Your task to perform on an android device: open a new tab in the chrome app Image 0: 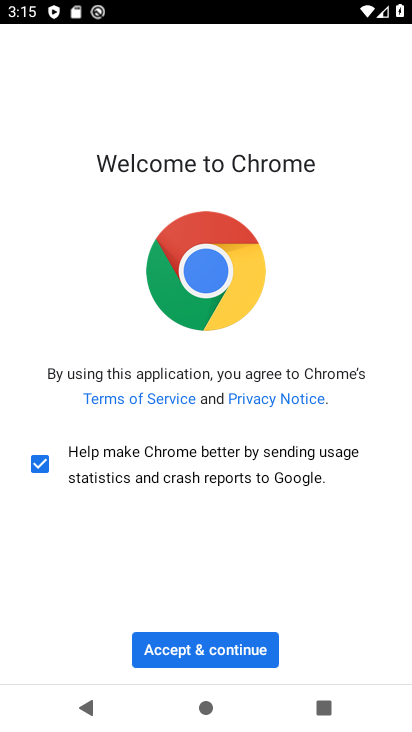
Step 0: click (215, 648)
Your task to perform on an android device: open a new tab in the chrome app Image 1: 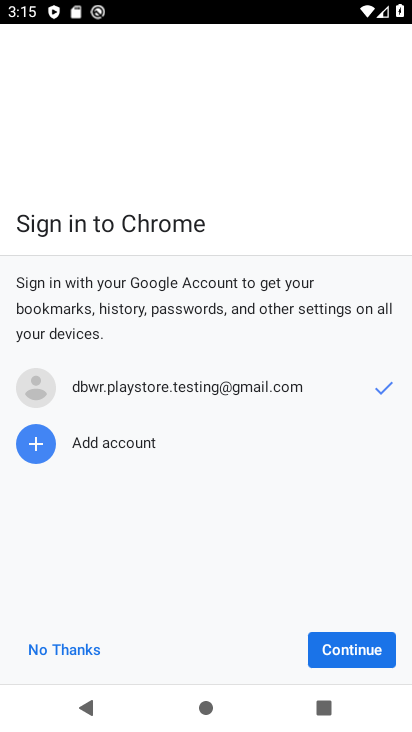
Step 1: click (369, 650)
Your task to perform on an android device: open a new tab in the chrome app Image 2: 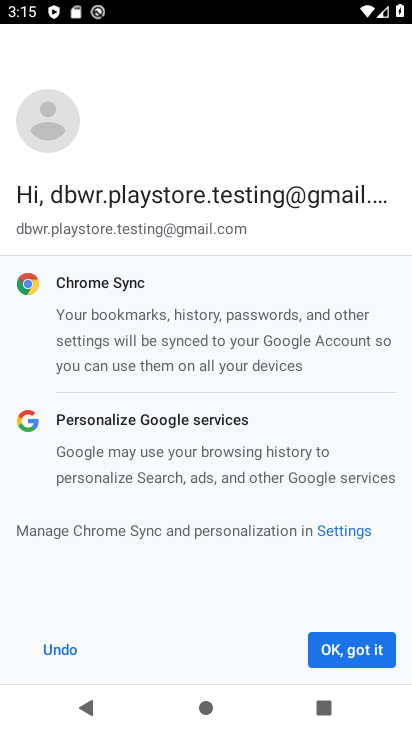
Step 2: click (369, 650)
Your task to perform on an android device: open a new tab in the chrome app Image 3: 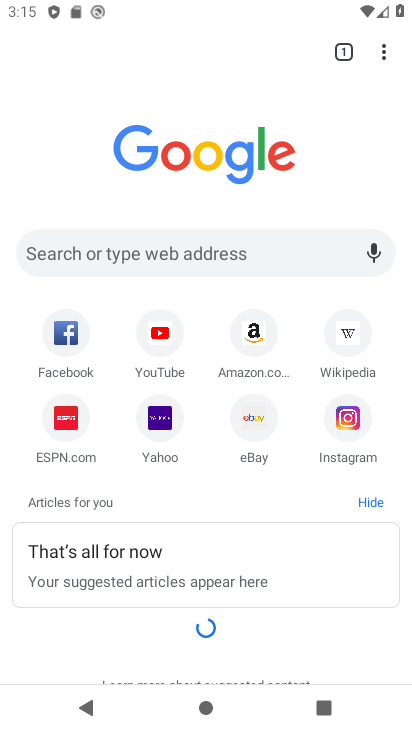
Step 3: task complete